Your task to perform on an android device: delete a single message in the gmail app Image 0: 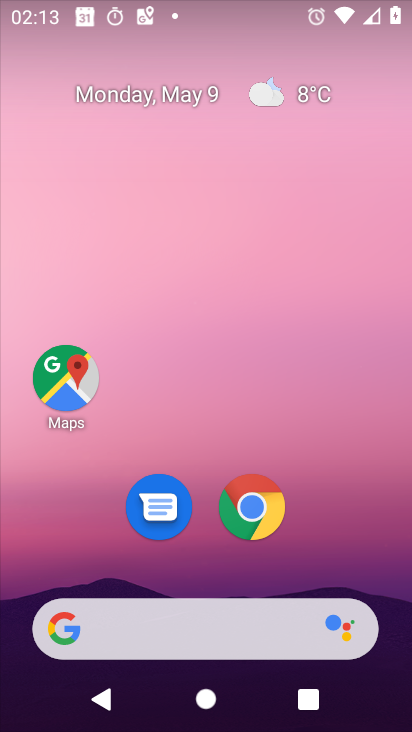
Step 0: drag from (221, 727) to (214, 85)
Your task to perform on an android device: delete a single message in the gmail app Image 1: 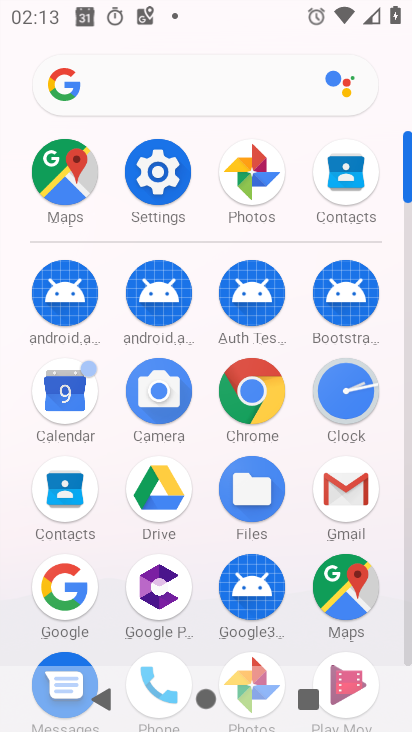
Step 1: click (349, 493)
Your task to perform on an android device: delete a single message in the gmail app Image 2: 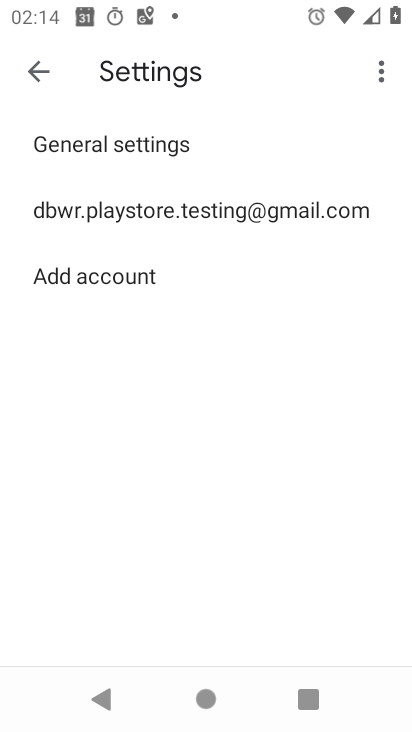
Step 2: click (45, 70)
Your task to perform on an android device: delete a single message in the gmail app Image 3: 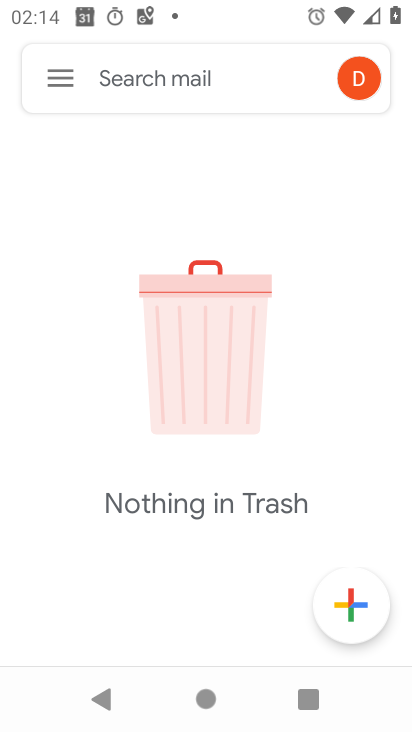
Step 3: click (45, 70)
Your task to perform on an android device: delete a single message in the gmail app Image 4: 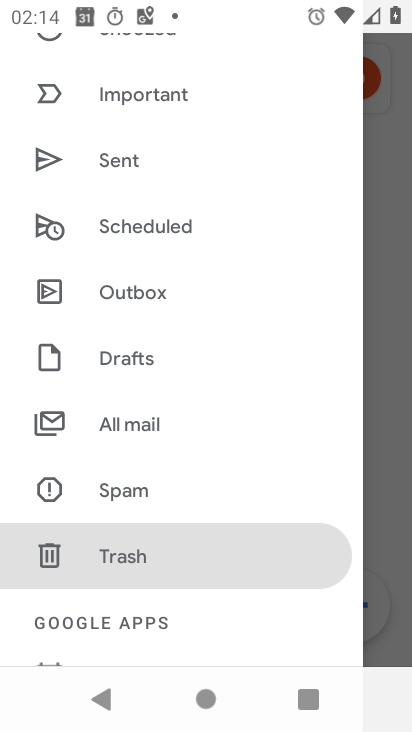
Step 4: drag from (170, 132) to (168, 543)
Your task to perform on an android device: delete a single message in the gmail app Image 5: 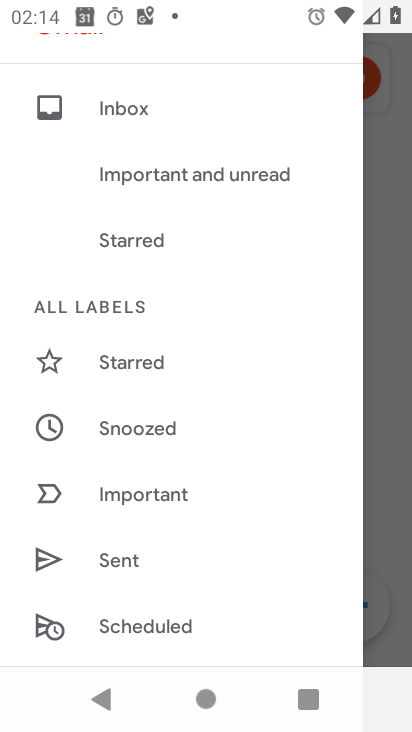
Step 5: click (139, 102)
Your task to perform on an android device: delete a single message in the gmail app Image 6: 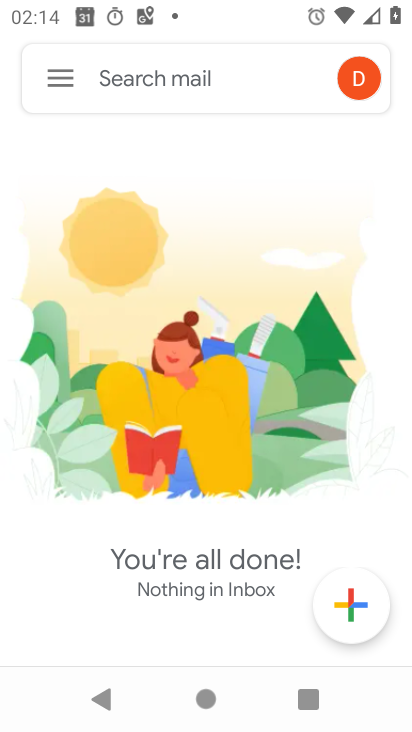
Step 6: task complete